Your task to perform on an android device: Go to internet settings Image 0: 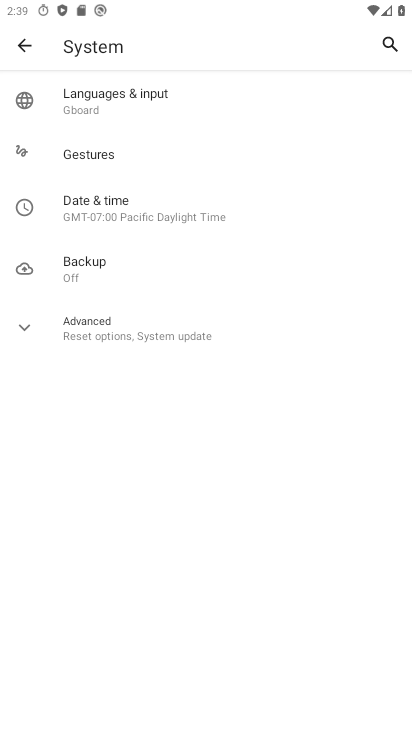
Step 0: press home button
Your task to perform on an android device: Go to internet settings Image 1: 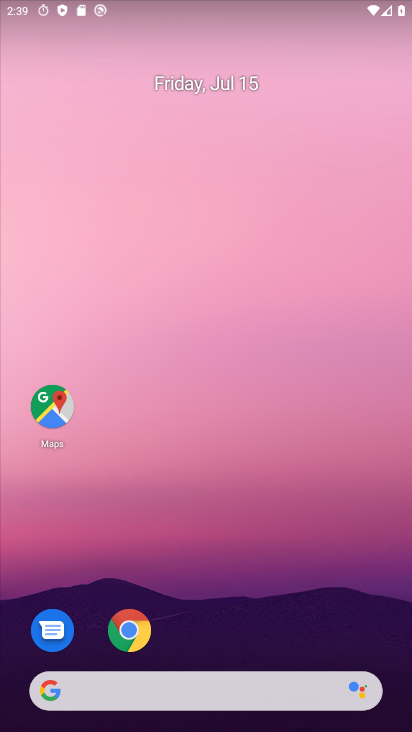
Step 1: drag from (276, 592) to (230, 15)
Your task to perform on an android device: Go to internet settings Image 2: 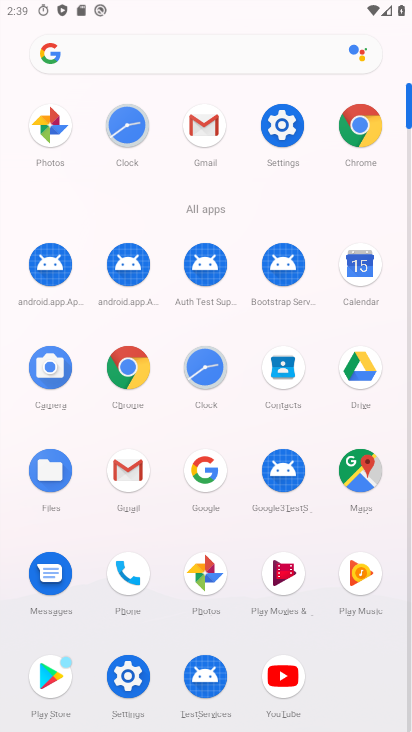
Step 2: click (283, 129)
Your task to perform on an android device: Go to internet settings Image 3: 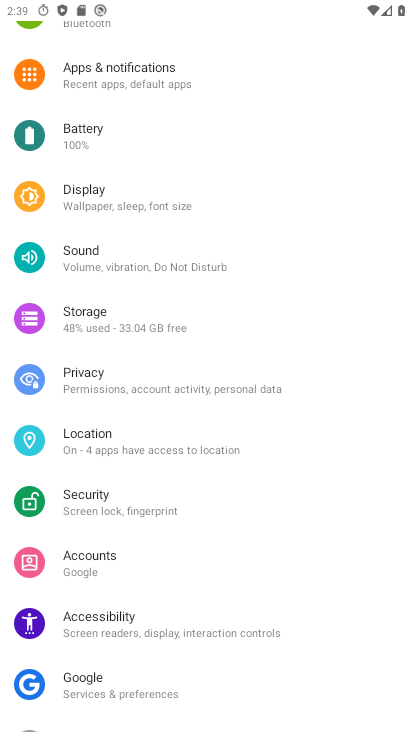
Step 3: drag from (279, 139) to (305, 442)
Your task to perform on an android device: Go to internet settings Image 4: 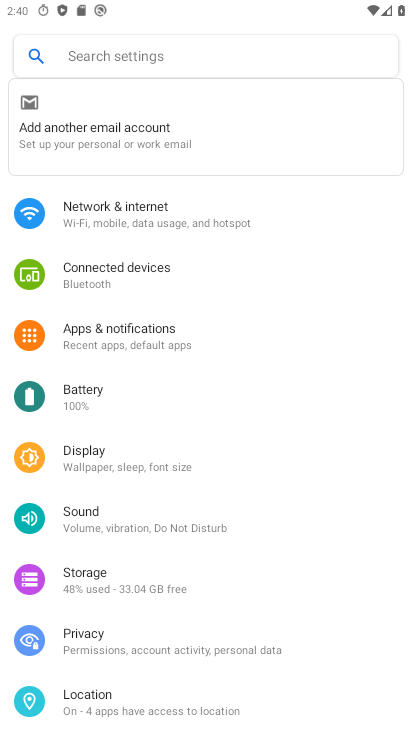
Step 4: click (225, 219)
Your task to perform on an android device: Go to internet settings Image 5: 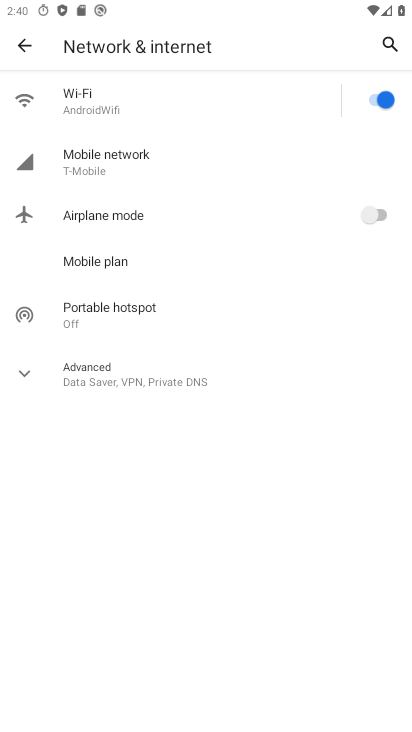
Step 5: click (123, 166)
Your task to perform on an android device: Go to internet settings Image 6: 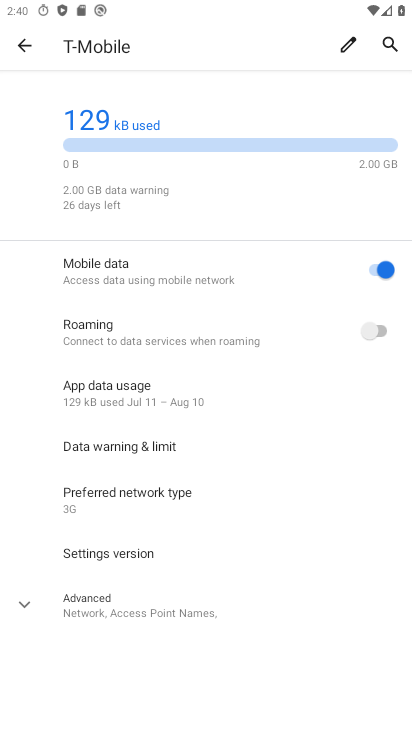
Step 6: task complete